Your task to perform on an android device: Open settings on Google Maps Image 0: 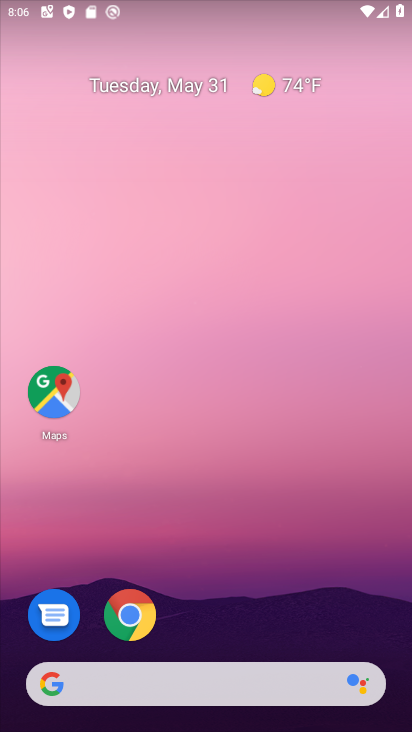
Step 0: click (56, 391)
Your task to perform on an android device: Open settings on Google Maps Image 1: 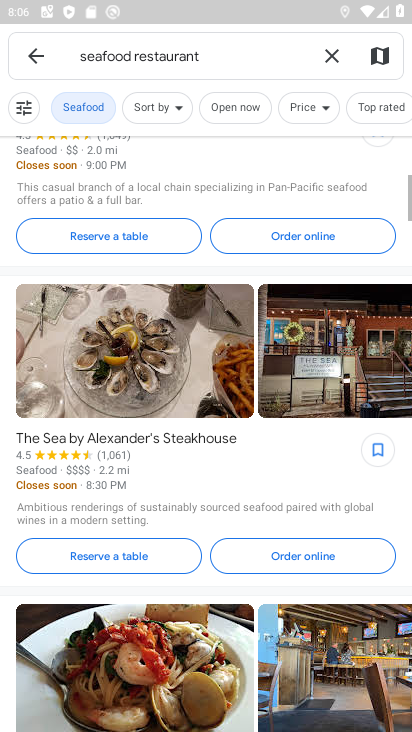
Step 1: click (29, 55)
Your task to perform on an android device: Open settings on Google Maps Image 2: 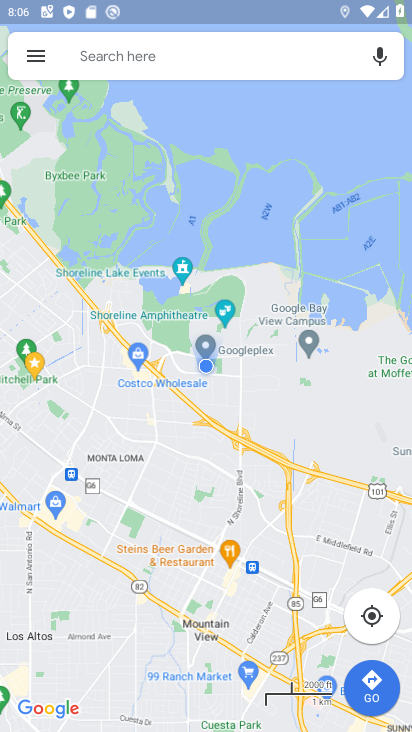
Step 2: click (36, 55)
Your task to perform on an android device: Open settings on Google Maps Image 3: 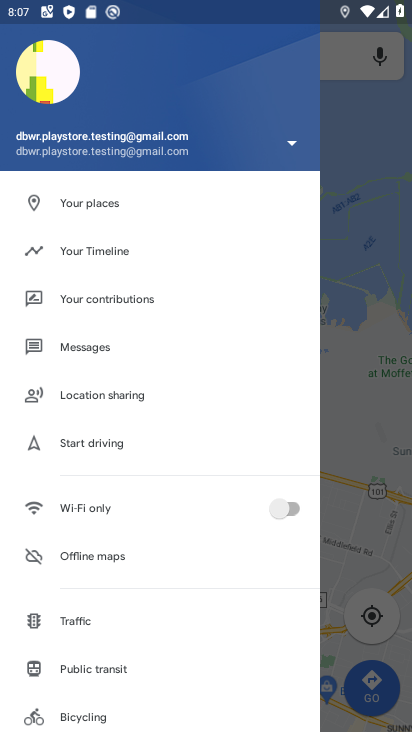
Step 3: drag from (155, 641) to (228, 145)
Your task to perform on an android device: Open settings on Google Maps Image 4: 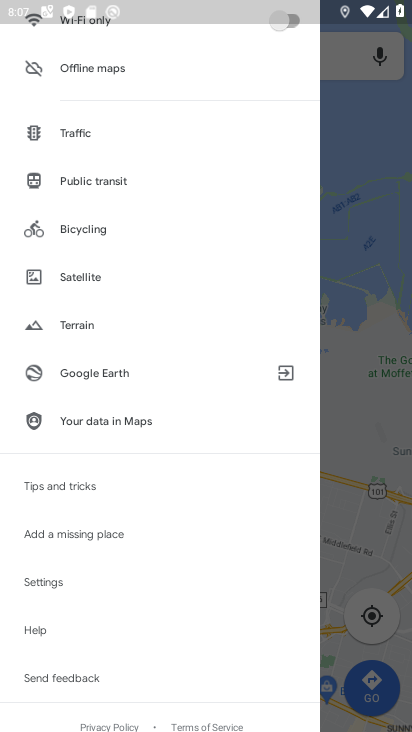
Step 4: click (54, 578)
Your task to perform on an android device: Open settings on Google Maps Image 5: 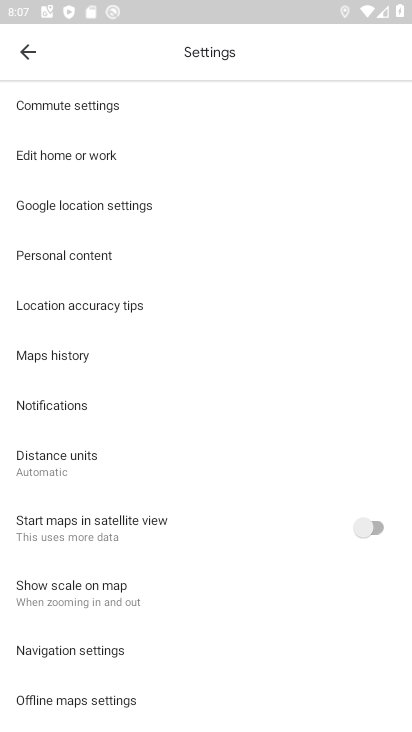
Step 5: task complete